Your task to perform on an android device: toggle priority inbox in the gmail app Image 0: 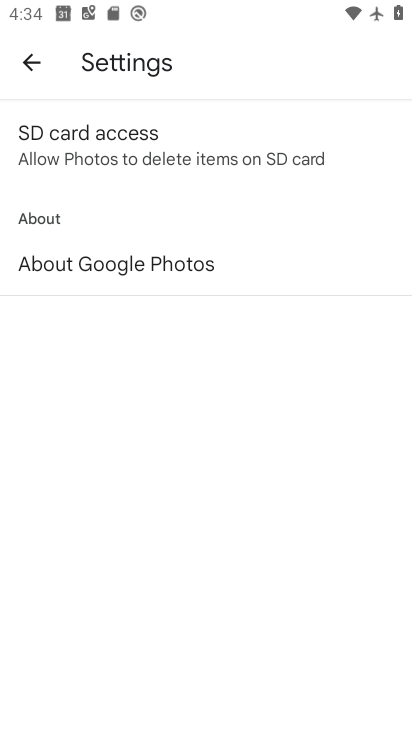
Step 0: press home button
Your task to perform on an android device: toggle priority inbox in the gmail app Image 1: 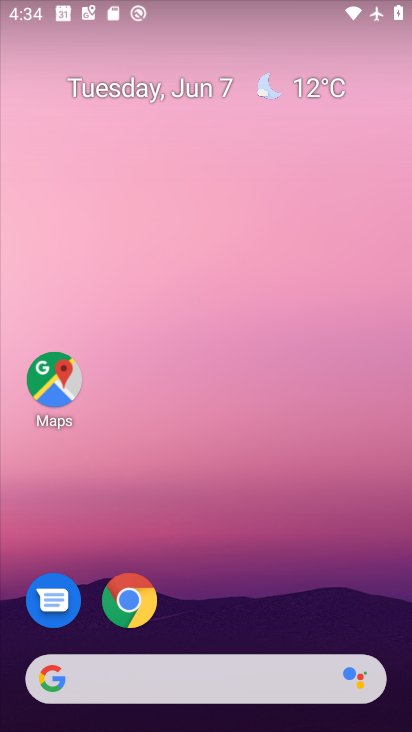
Step 1: drag from (303, 566) to (248, 146)
Your task to perform on an android device: toggle priority inbox in the gmail app Image 2: 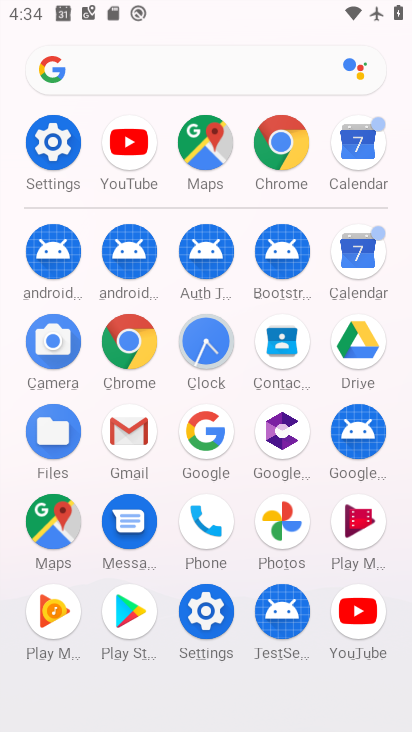
Step 2: click (134, 447)
Your task to perform on an android device: toggle priority inbox in the gmail app Image 3: 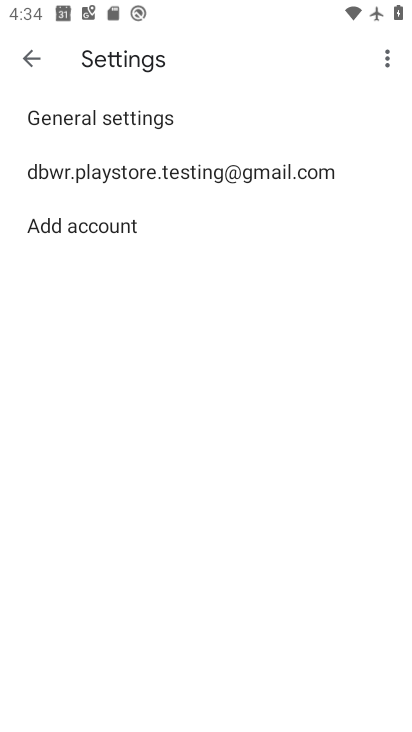
Step 3: click (248, 169)
Your task to perform on an android device: toggle priority inbox in the gmail app Image 4: 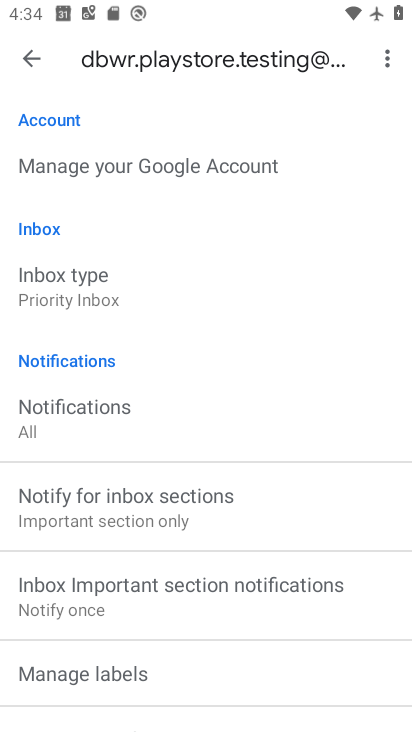
Step 4: click (93, 285)
Your task to perform on an android device: toggle priority inbox in the gmail app Image 5: 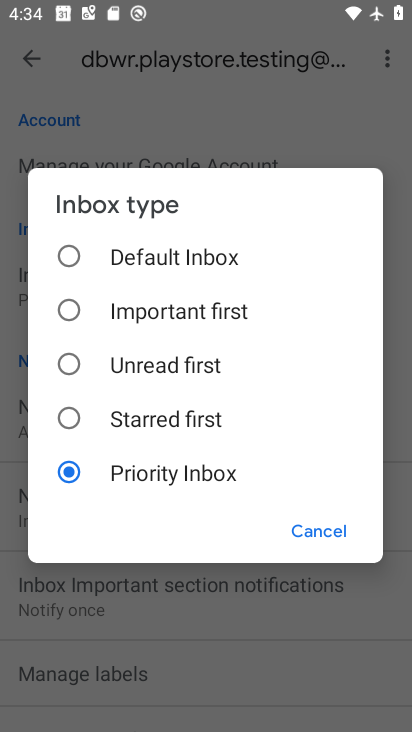
Step 5: click (159, 260)
Your task to perform on an android device: toggle priority inbox in the gmail app Image 6: 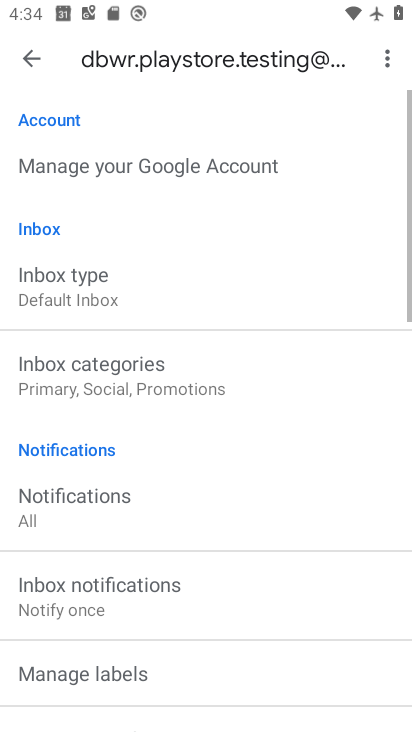
Step 6: task complete